Your task to perform on an android device: turn on airplane mode Image 0: 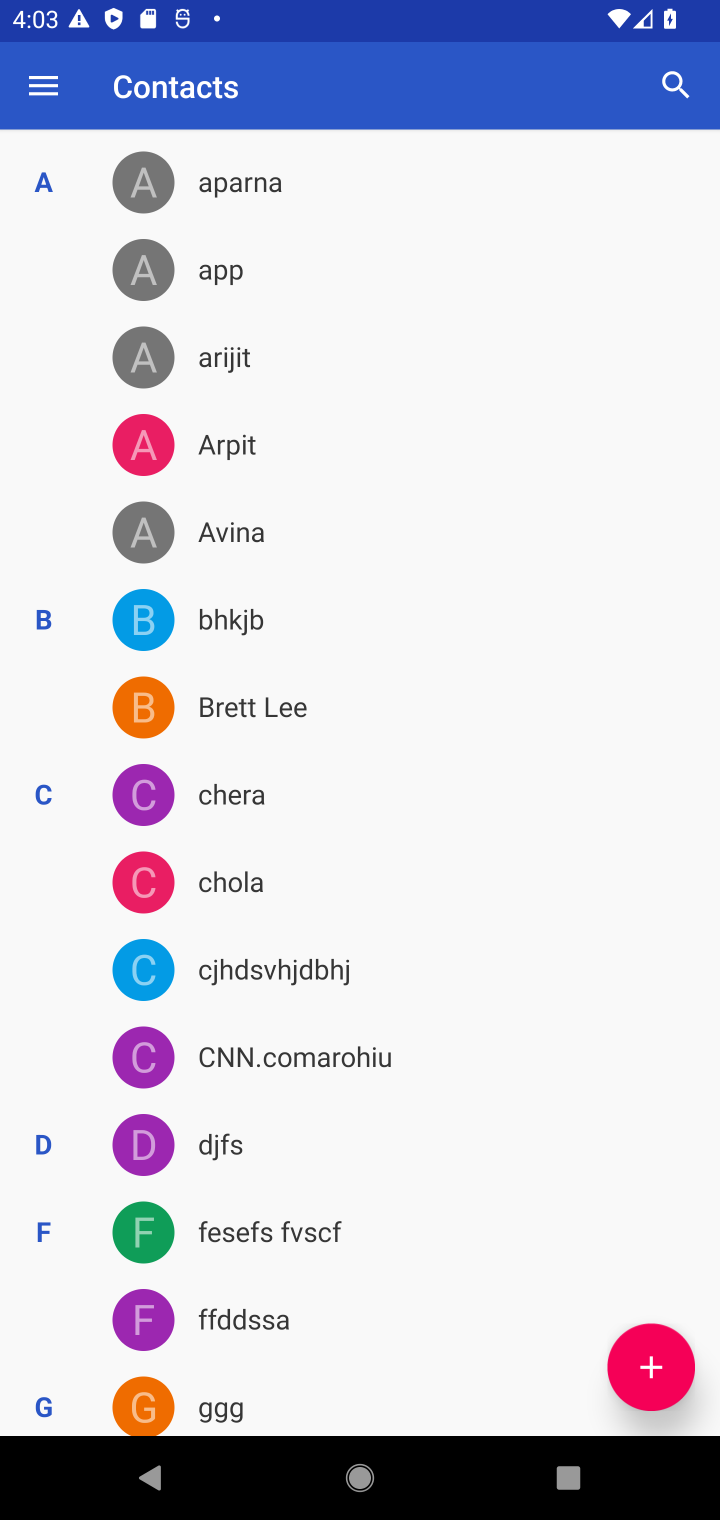
Step 0: drag from (423, 32) to (310, 1157)
Your task to perform on an android device: turn on airplane mode Image 1: 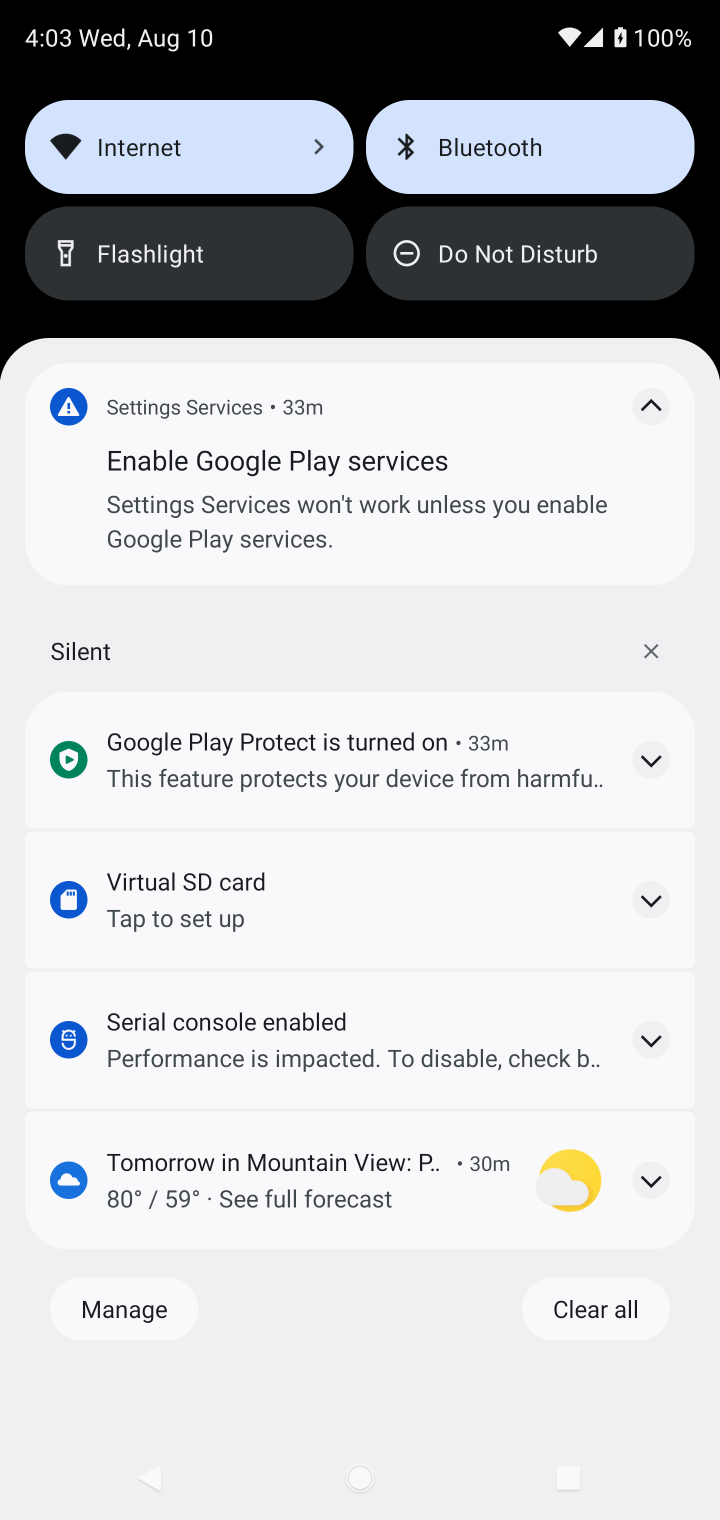
Step 1: drag from (349, 305) to (332, 1158)
Your task to perform on an android device: turn on airplane mode Image 2: 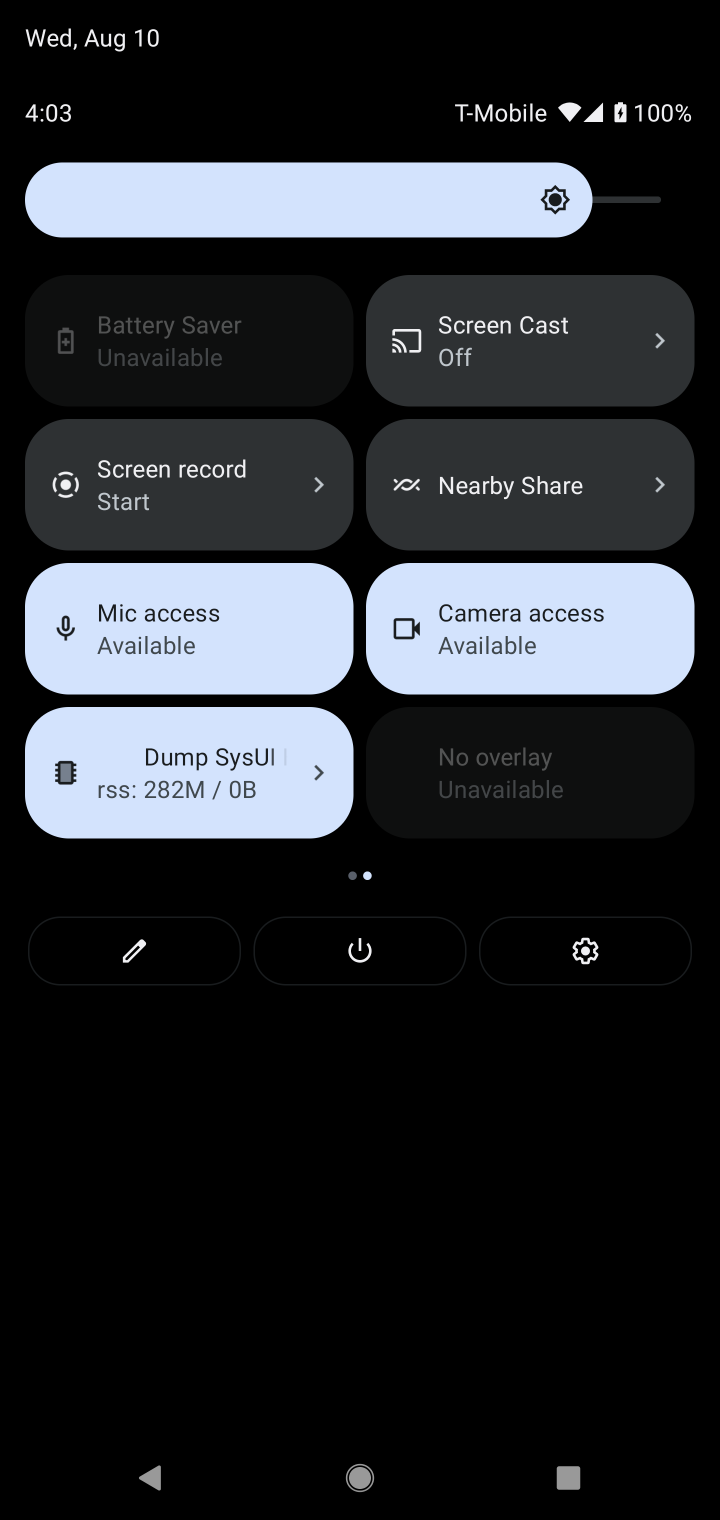
Step 2: drag from (189, 860) to (242, 1216)
Your task to perform on an android device: turn on airplane mode Image 3: 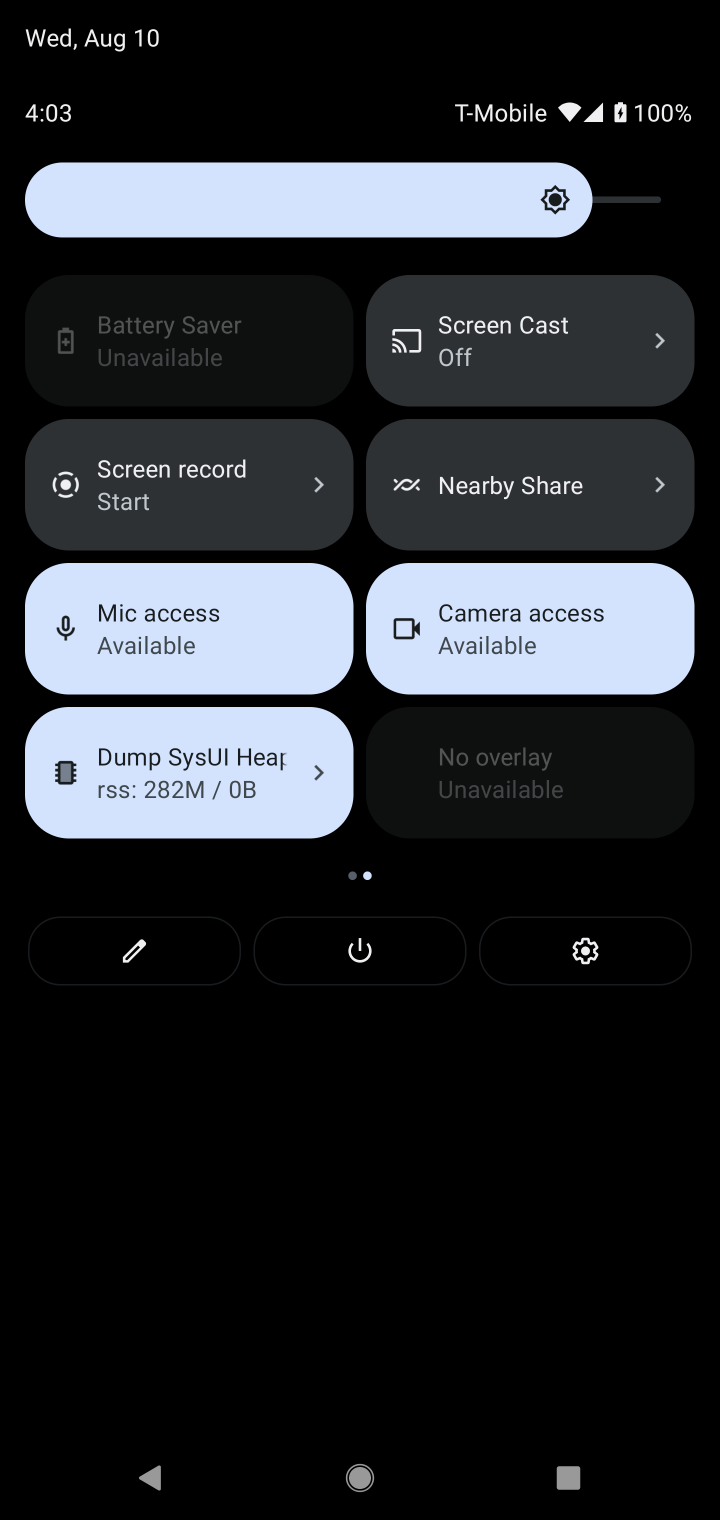
Step 3: click (614, 854)
Your task to perform on an android device: turn on airplane mode Image 4: 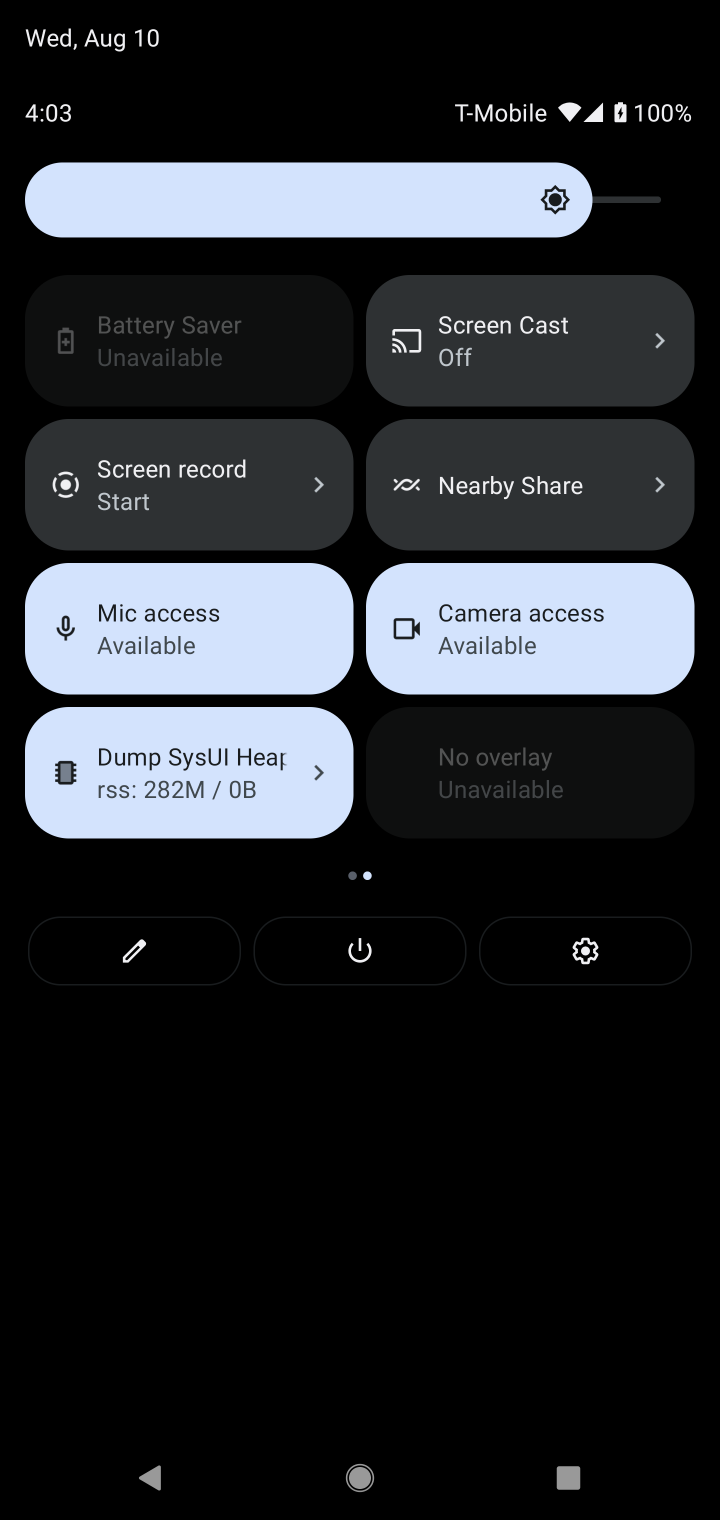
Step 4: drag from (404, 856) to (506, 878)
Your task to perform on an android device: turn on airplane mode Image 5: 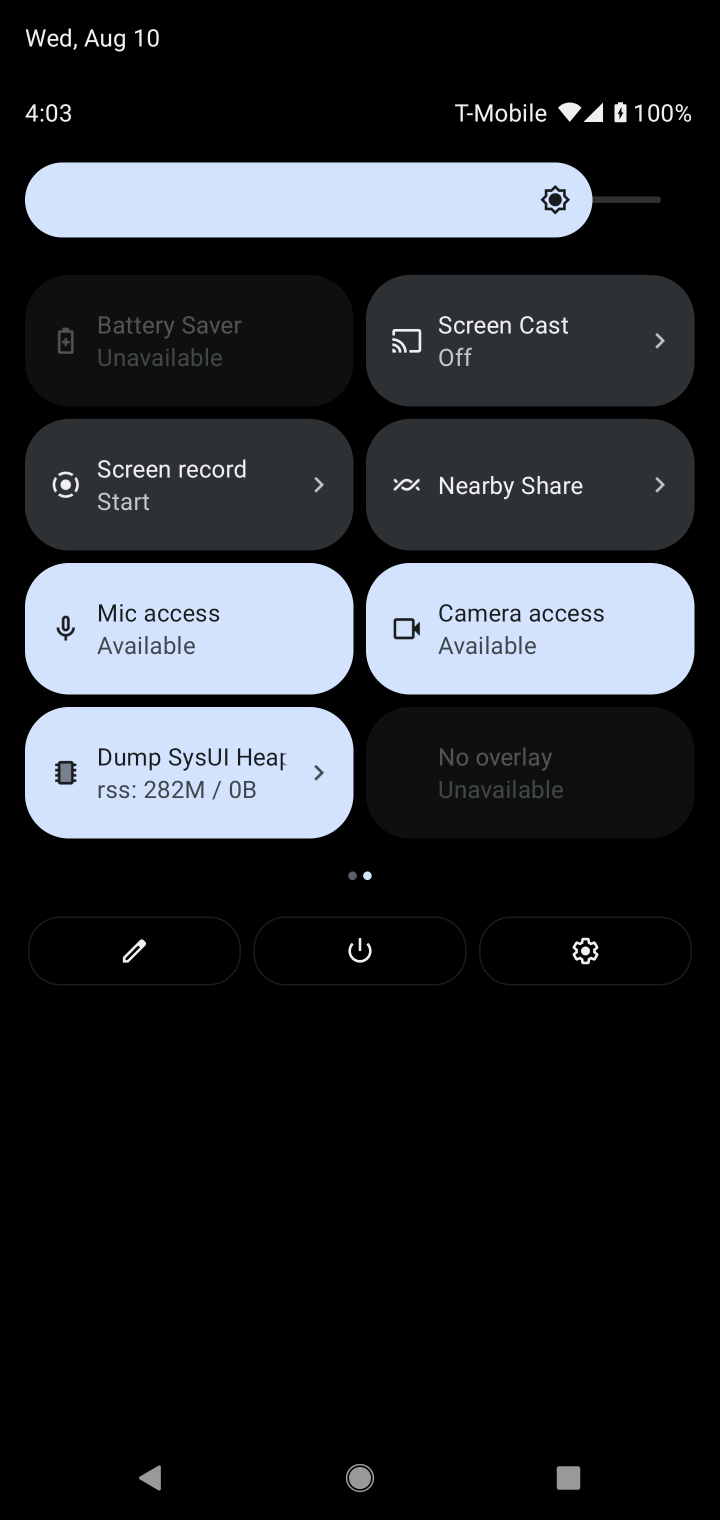
Step 5: drag from (236, 876) to (591, 851)
Your task to perform on an android device: turn on airplane mode Image 6: 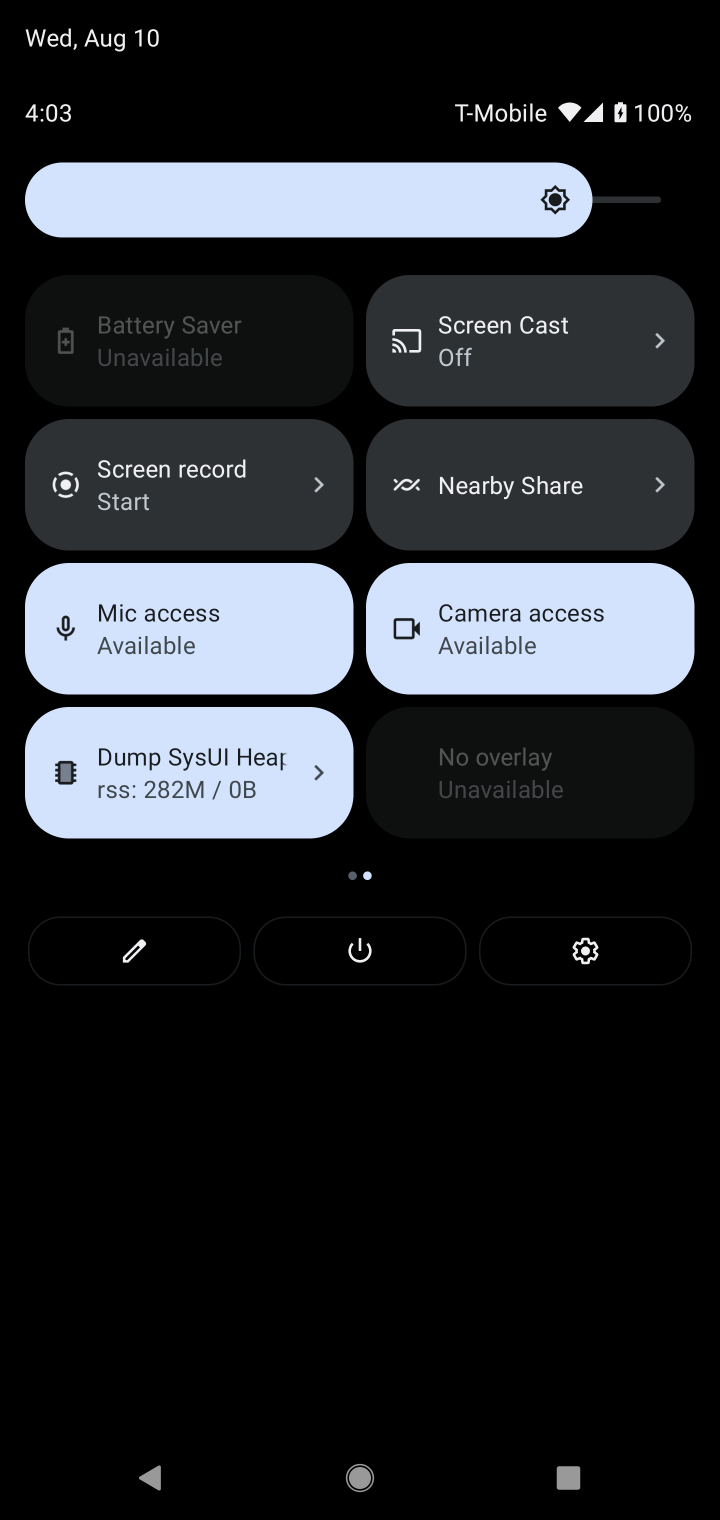
Step 6: drag from (256, 861) to (459, 880)
Your task to perform on an android device: turn on airplane mode Image 7: 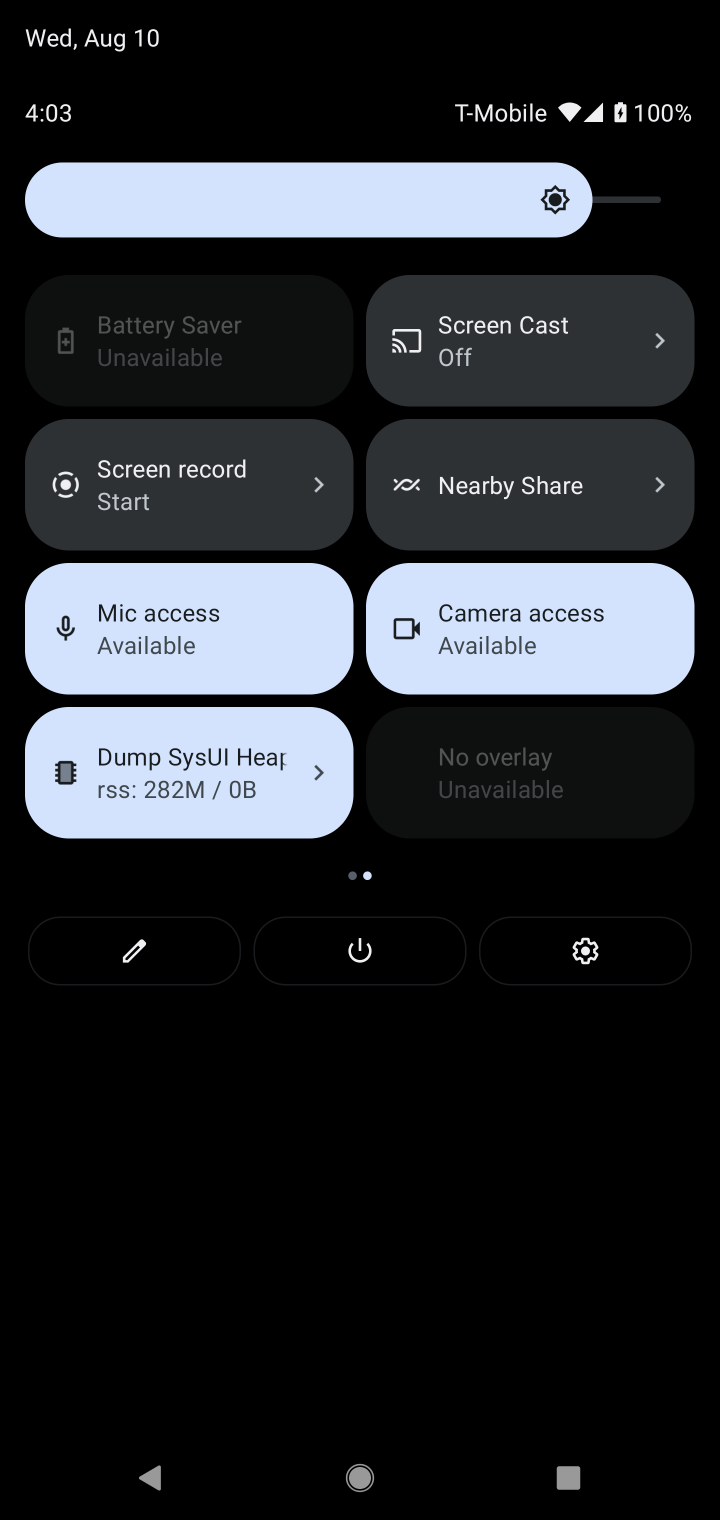
Step 7: drag from (275, 858) to (584, 833)
Your task to perform on an android device: turn on airplane mode Image 8: 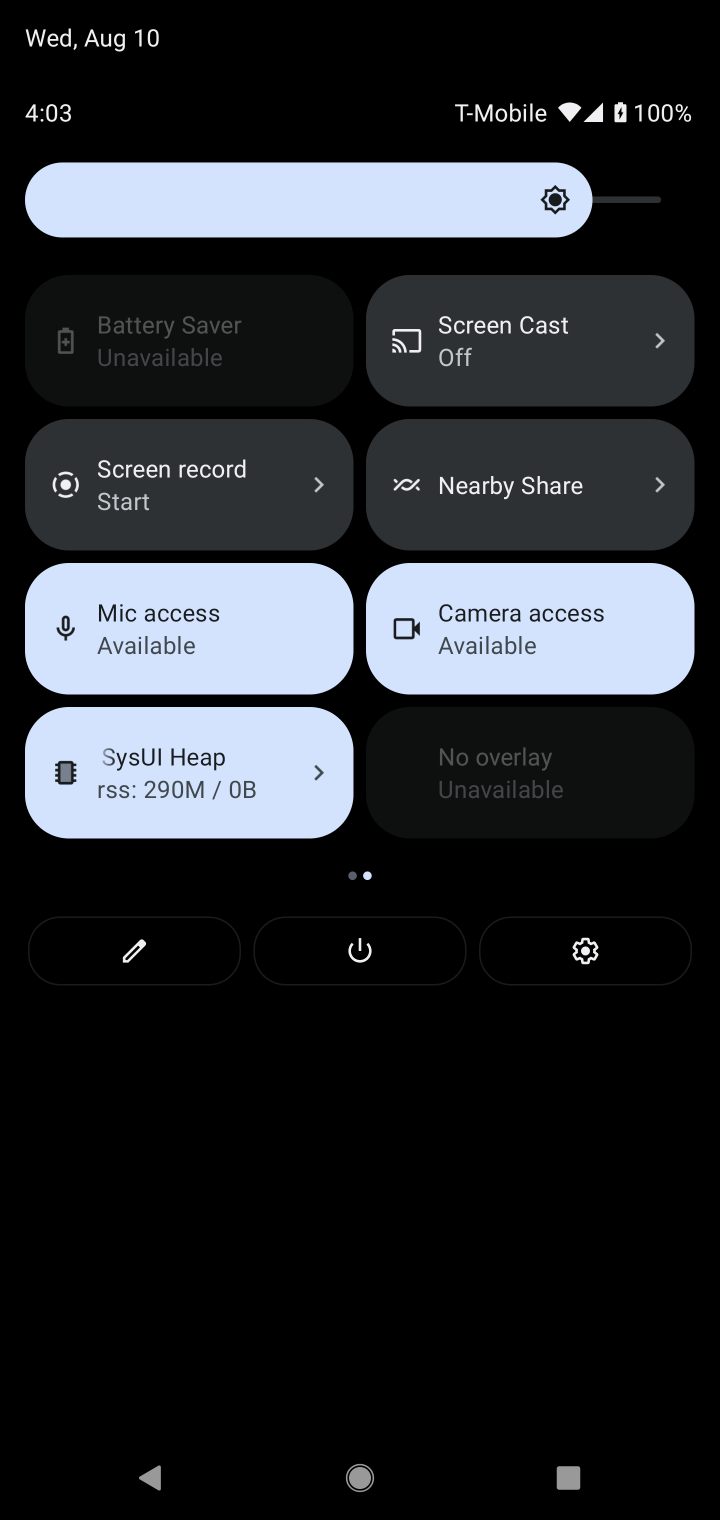
Step 8: click (604, 957)
Your task to perform on an android device: turn on airplane mode Image 9: 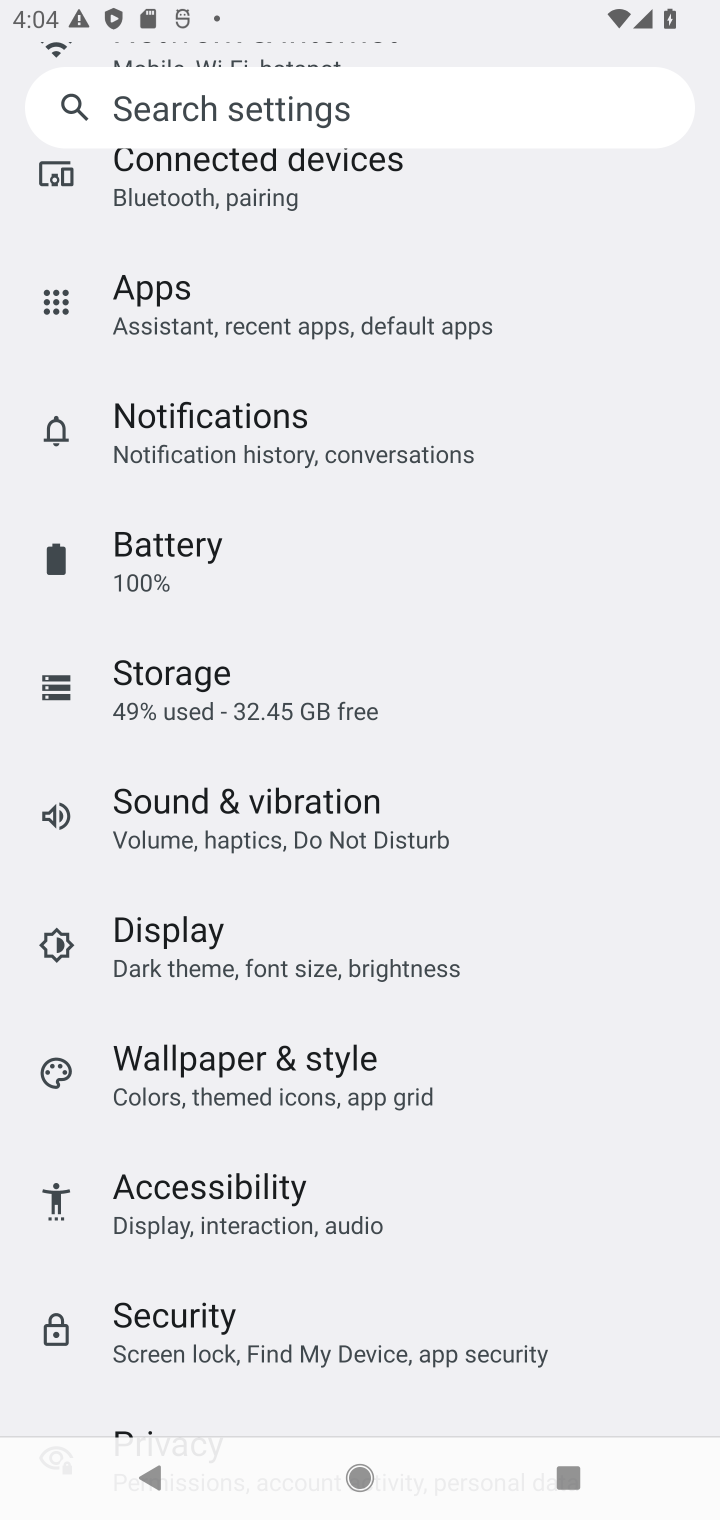
Step 9: drag from (462, 240) to (311, 1178)
Your task to perform on an android device: turn on airplane mode Image 10: 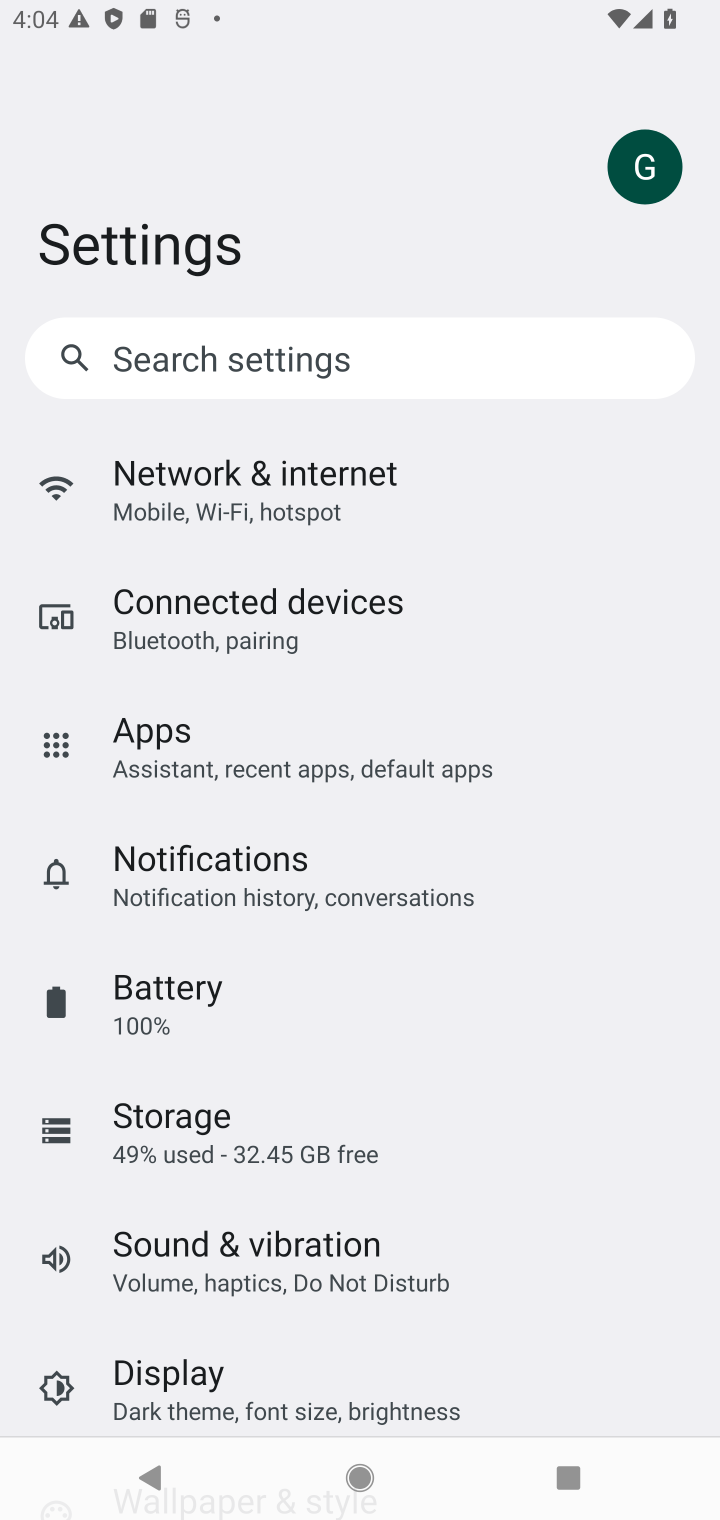
Step 10: click (342, 490)
Your task to perform on an android device: turn on airplane mode Image 11: 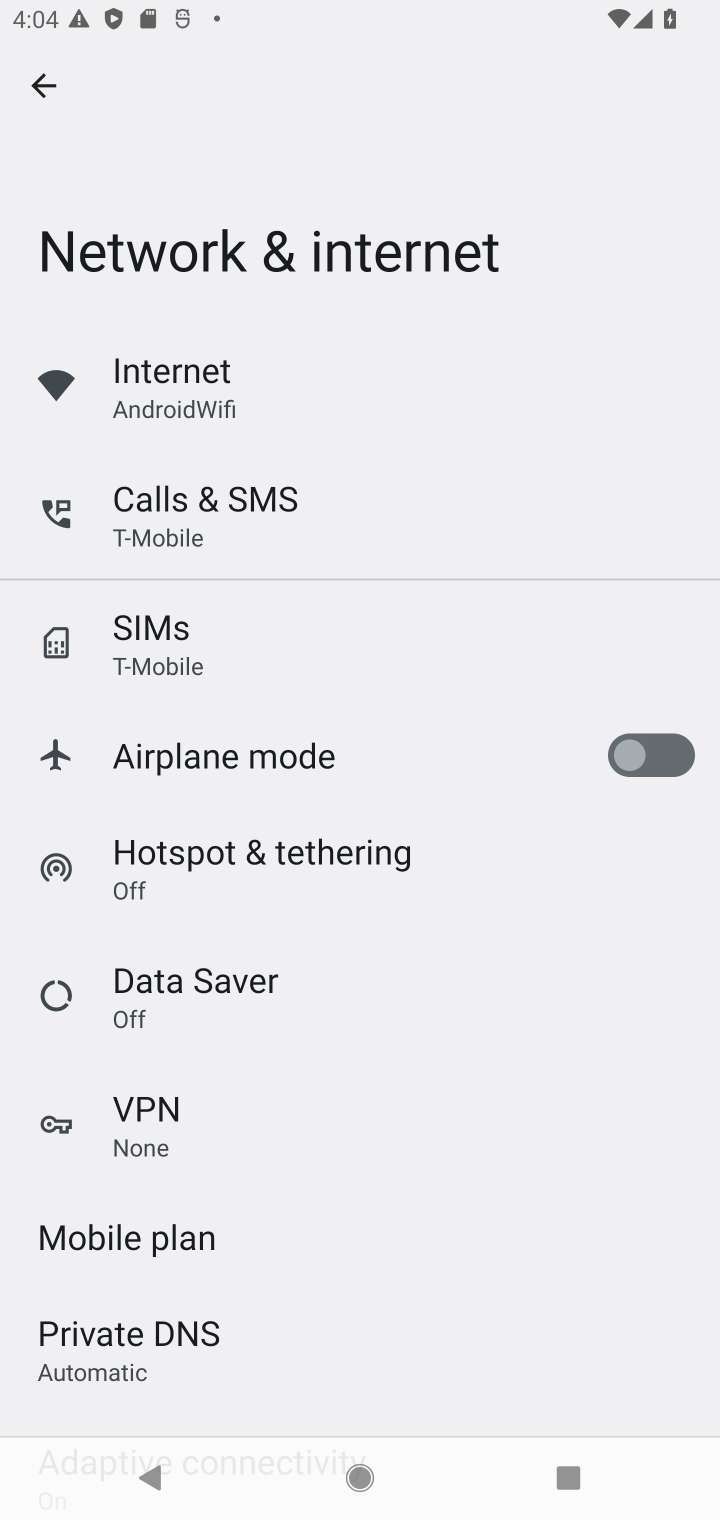
Step 11: click (664, 755)
Your task to perform on an android device: turn on airplane mode Image 12: 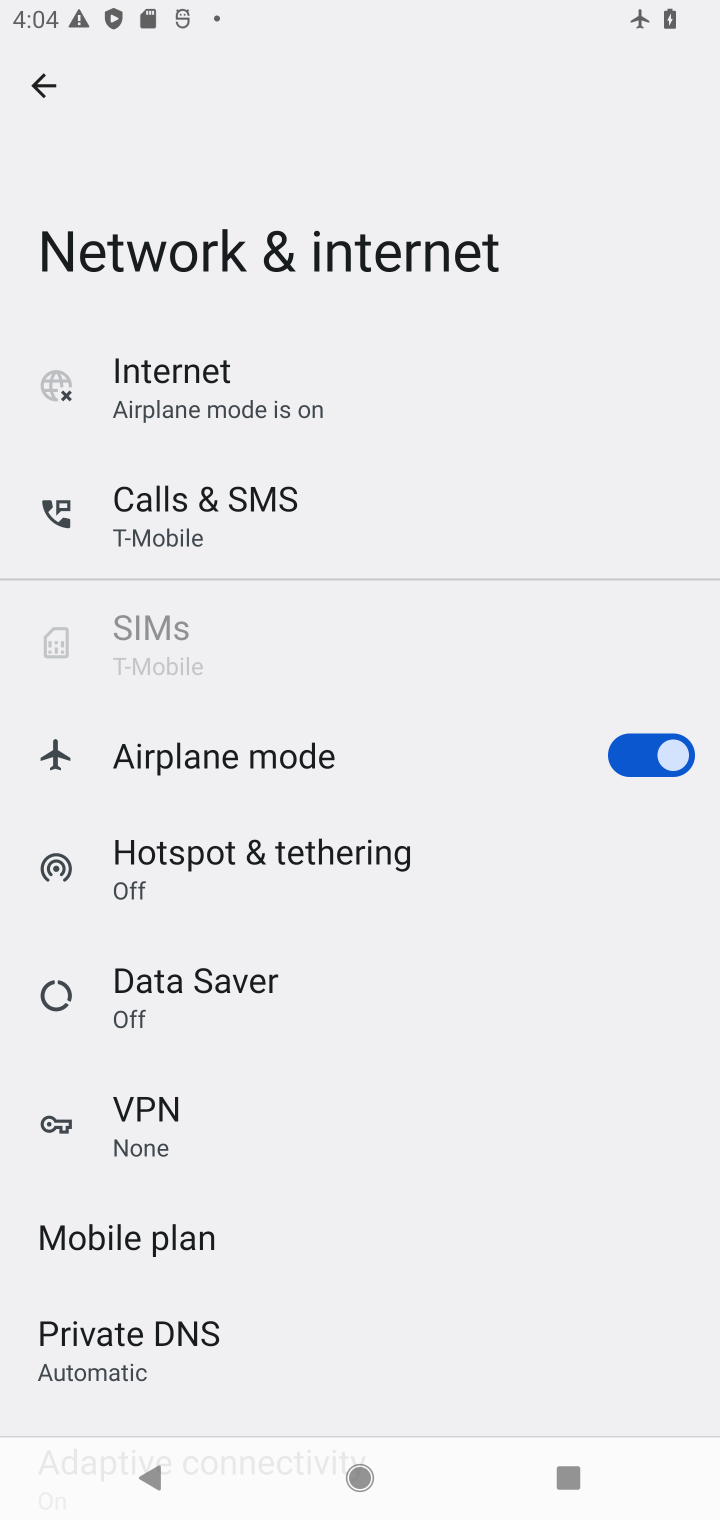
Step 12: task complete